Your task to perform on an android device: toggle location history Image 0: 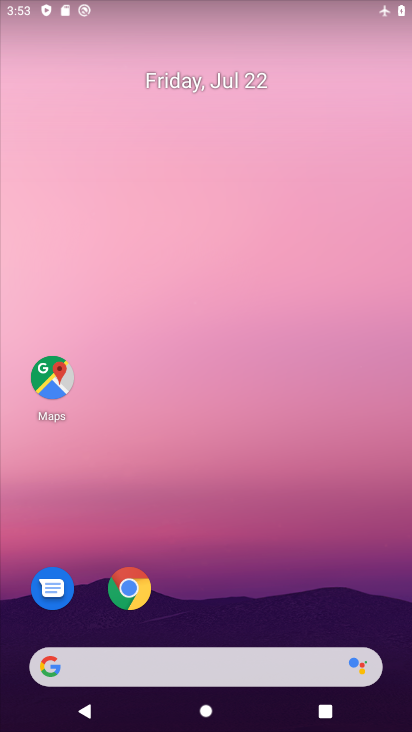
Step 0: drag from (335, 615) to (273, 229)
Your task to perform on an android device: toggle location history Image 1: 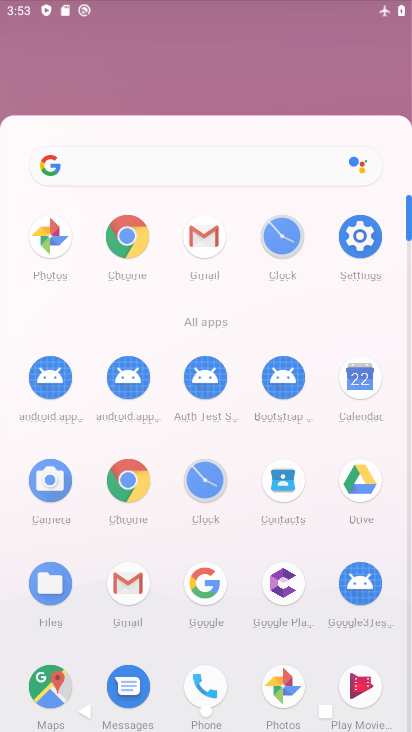
Step 1: drag from (237, 537) to (240, 340)
Your task to perform on an android device: toggle location history Image 2: 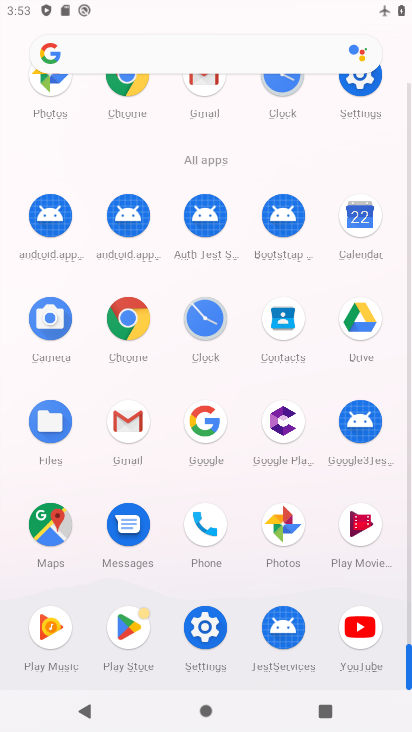
Step 2: click (42, 535)
Your task to perform on an android device: toggle location history Image 3: 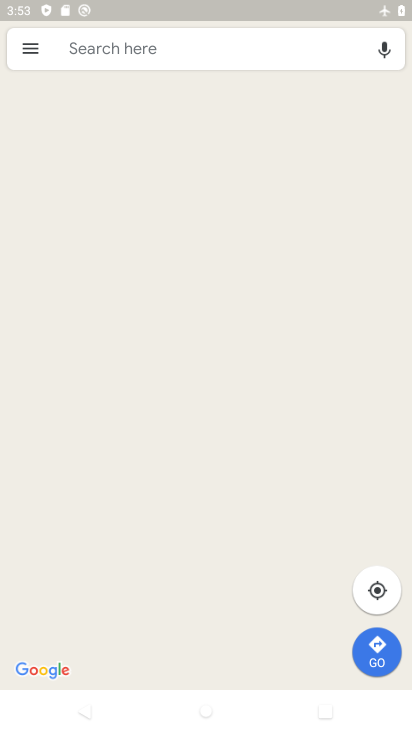
Step 3: click (42, 535)
Your task to perform on an android device: toggle location history Image 4: 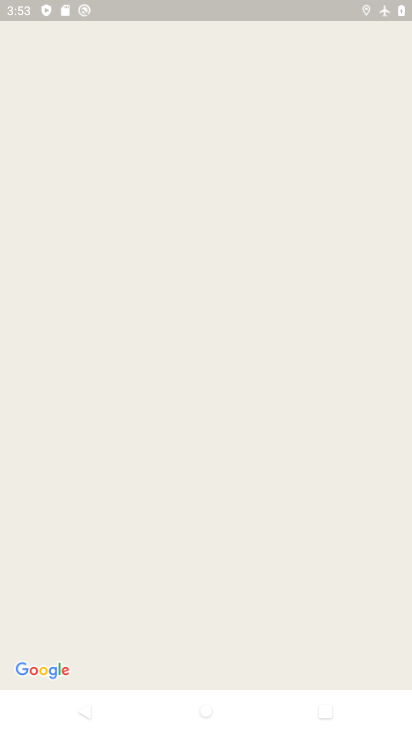
Step 4: task complete